Your task to perform on an android device: toggle airplane mode Image 0: 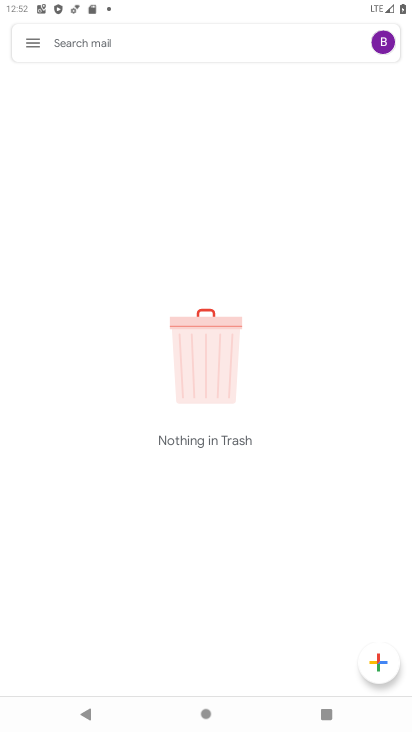
Step 0: drag from (343, 10) to (252, 410)
Your task to perform on an android device: toggle airplane mode Image 1: 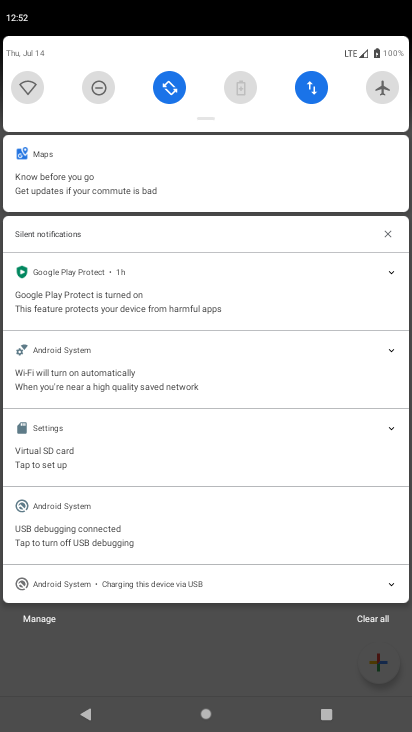
Step 1: click (376, 88)
Your task to perform on an android device: toggle airplane mode Image 2: 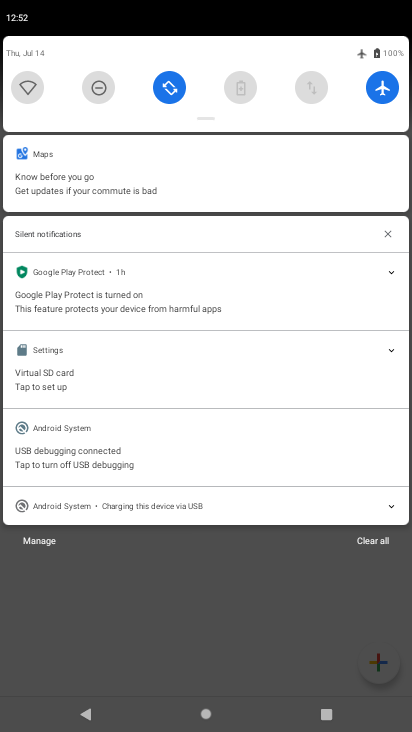
Step 2: task complete